Your task to perform on an android device: set an alarm Image 0: 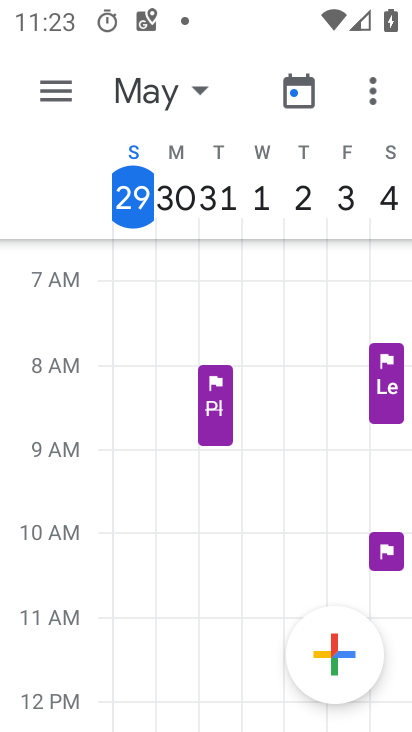
Step 0: press home button
Your task to perform on an android device: set an alarm Image 1: 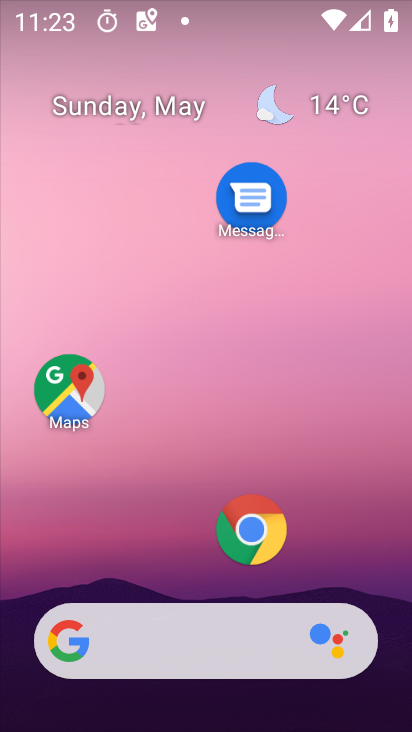
Step 1: drag from (175, 534) to (277, 7)
Your task to perform on an android device: set an alarm Image 2: 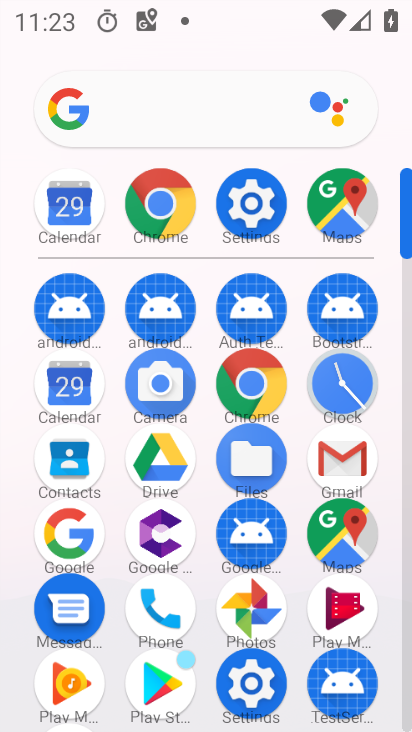
Step 2: click (354, 388)
Your task to perform on an android device: set an alarm Image 3: 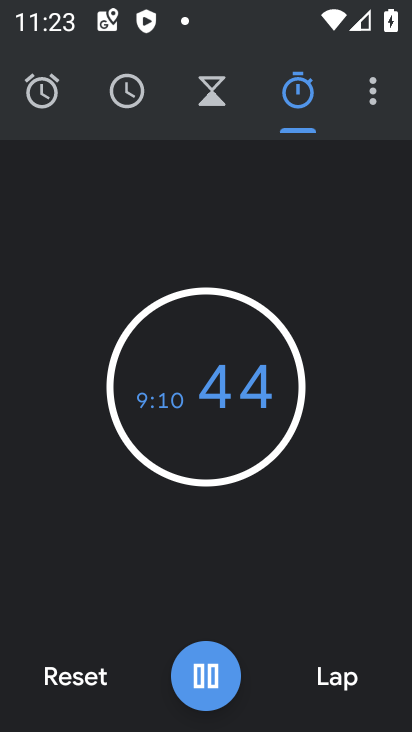
Step 3: click (72, 674)
Your task to perform on an android device: set an alarm Image 4: 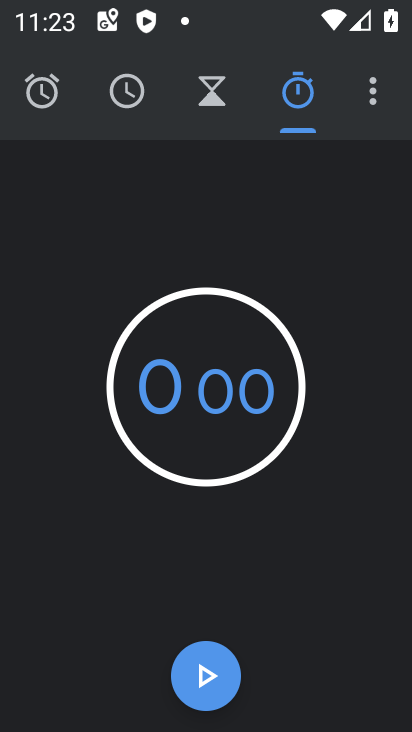
Step 4: click (41, 95)
Your task to perform on an android device: set an alarm Image 5: 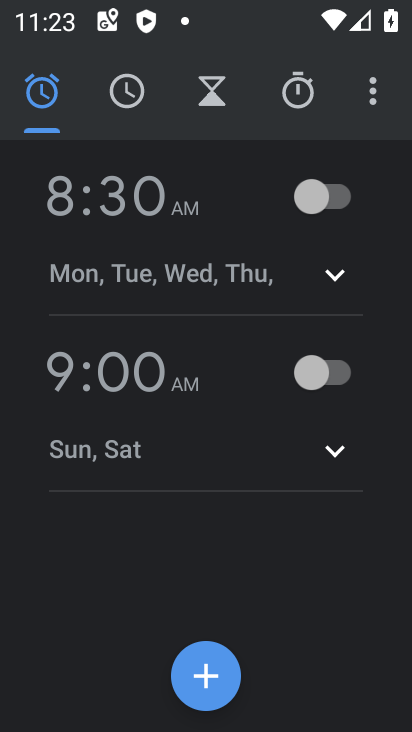
Step 5: click (132, 219)
Your task to perform on an android device: set an alarm Image 6: 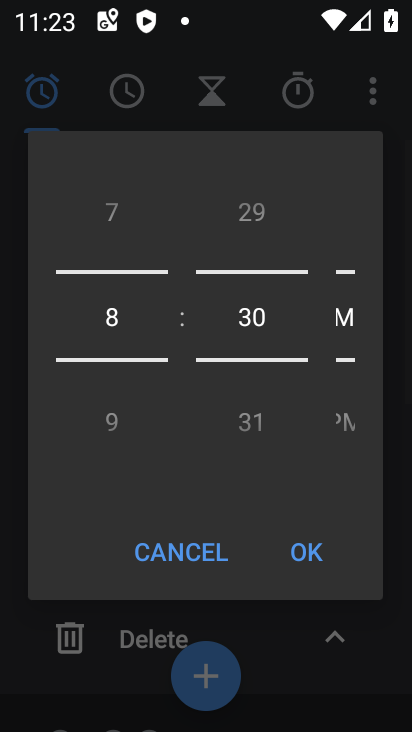
Step 6: drag from (270, 300) to (279, 98)
Your task to perform on an android device: set an alarm Image 7: 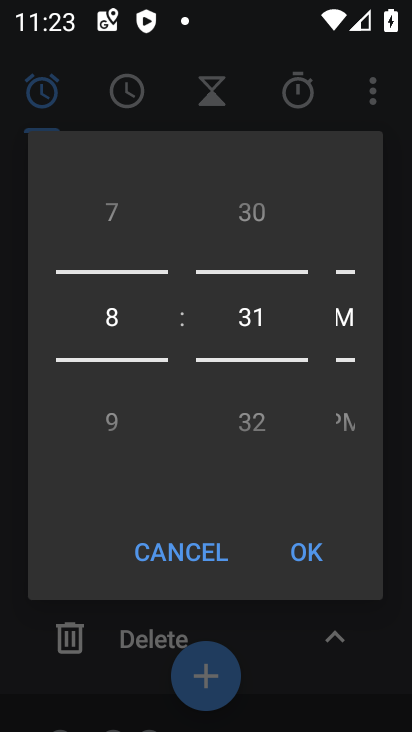
Step 7: drag from (95, 315) to (111, 588)
Your task to perform on an android device: set an alarm Image 8: 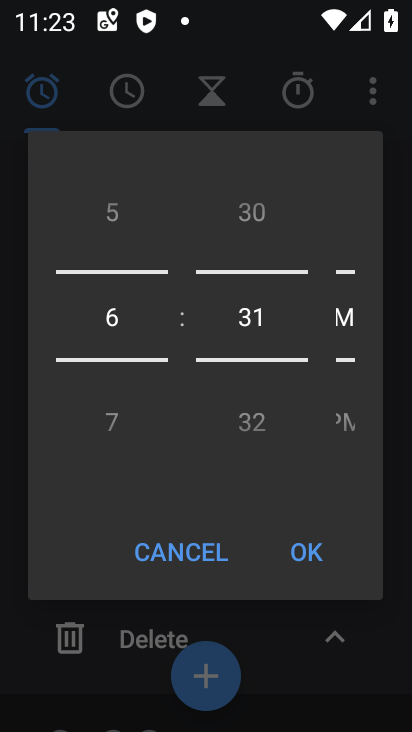
Step 8: click (305, 557)
Your task to perform on an android device: set an alarm Image 9: 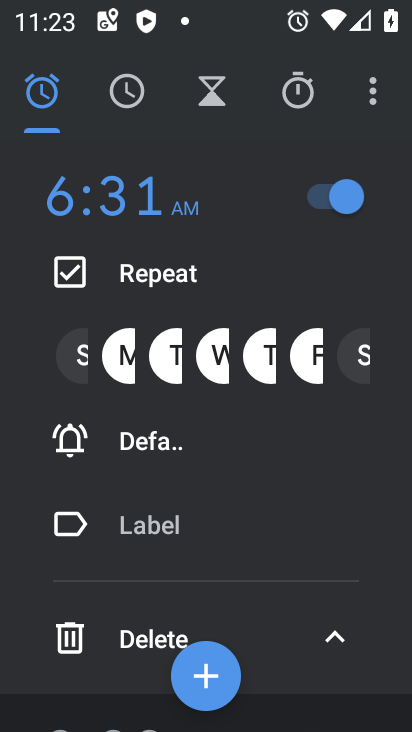
Step 9: task complete